Your task to perform on an android device: Search for sushi restaurants on Maps Image 0: 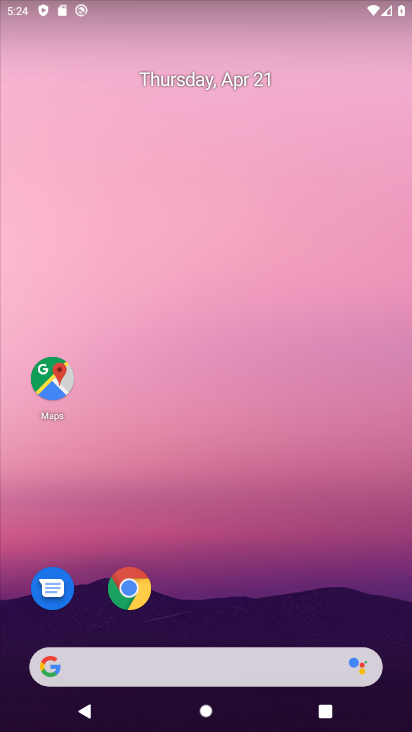
Step 0: drag from (379, 534) to (386, 430)
Your task to perform on an android device: Search for sushi restaurants on Maps Image 1: 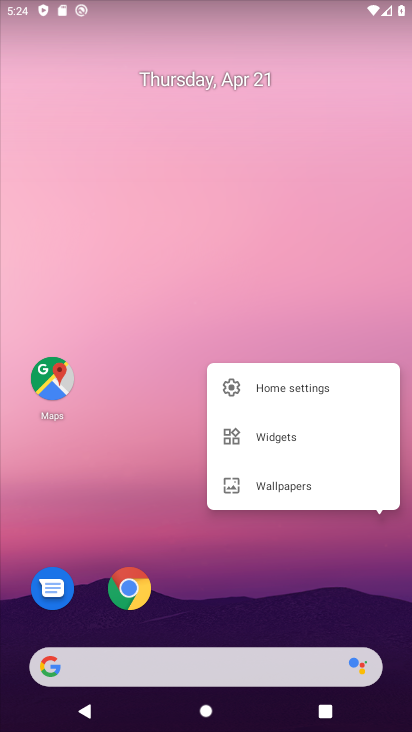
Step 1: click (282, 541)
Your task to perform on an android device: Search for sushi restaurants on Maps Image 2: 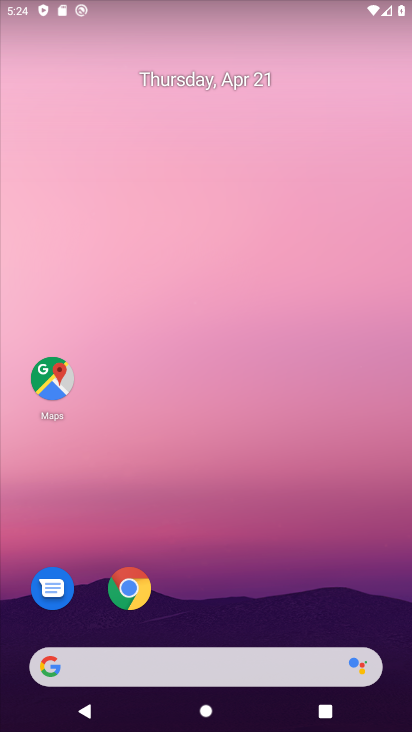
Step 2: click (28, 375)
Your task to perform on an android device: Search for sushi restaurants on Maps Image 3: 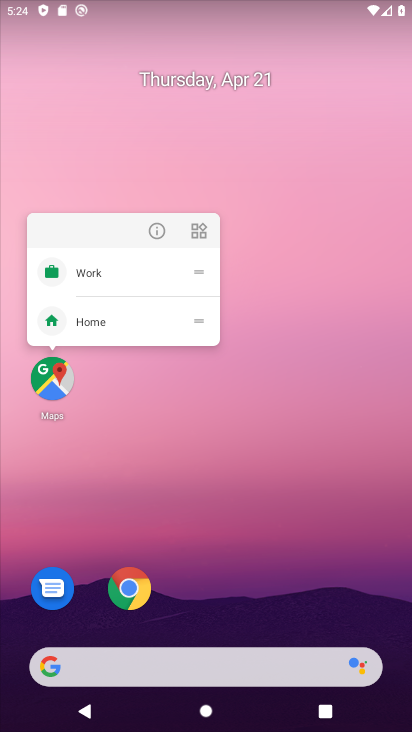
Step 3: click (56, 399)
Your task to perform on an android device: Search for sushi restaurants on Maps Image 4: 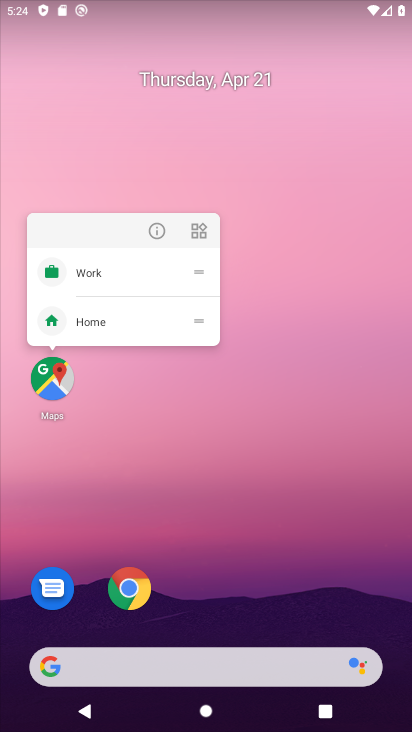
Step 4: click (51, 386)
Your task to perform on an android device: Search for sushi restaurants on Maps Image 5: 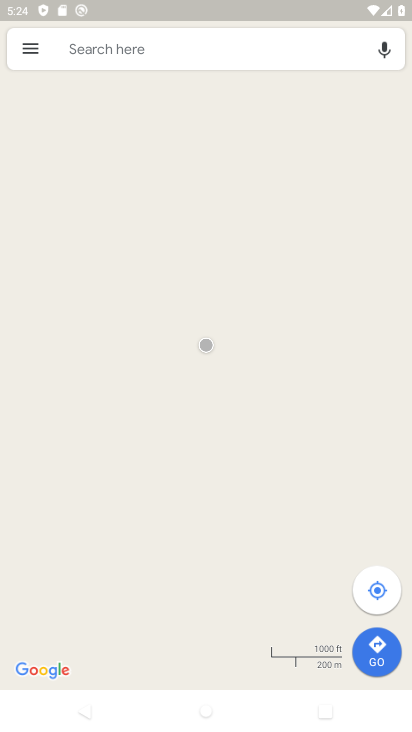
Step 5: click (160, 58)
Your task to perform on an android device: Search for sushi restaurants on Maps Image 6: 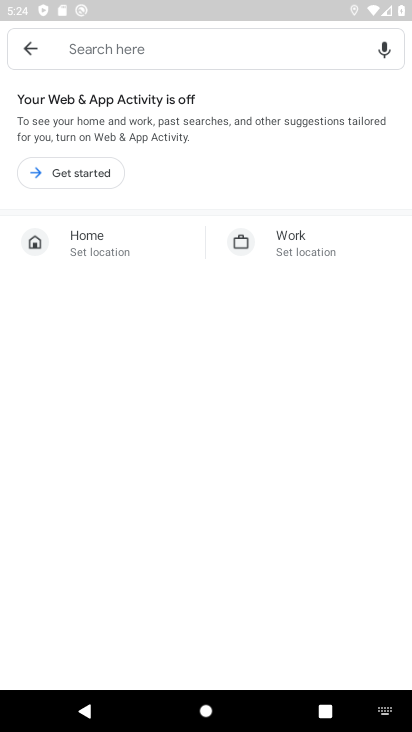
Step 6: click (190, 54)
Your task to perform on an android device: Search for sushi restaurants on Maps Image 7: 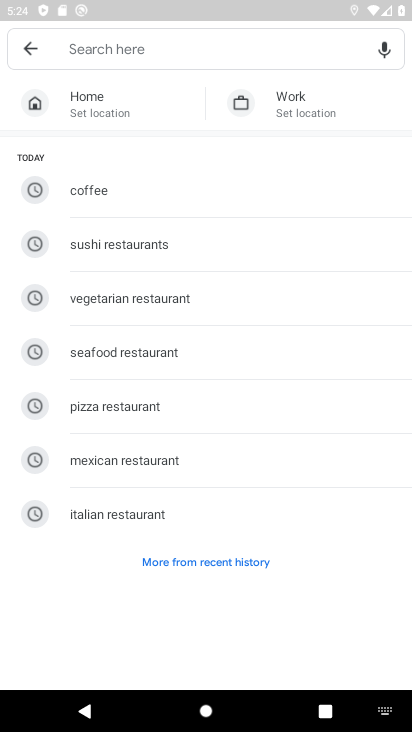
Step 7: click (121, 249)
Your task to perform on an android device: Search for sushi restaurants on Maps Image 8: 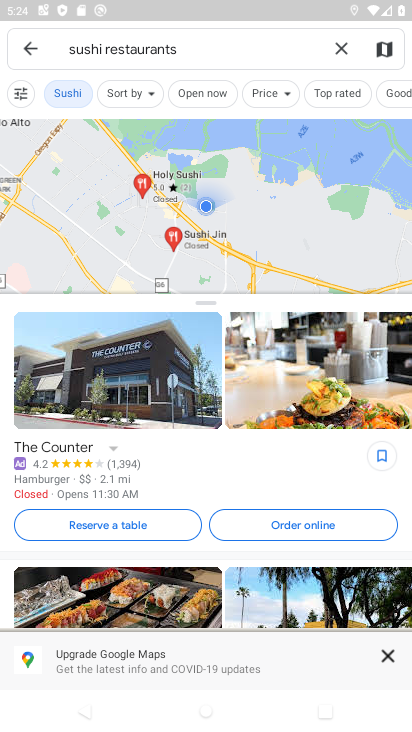
Step 8: task complete